Your task to perform on an android device: turn off location Image 0: 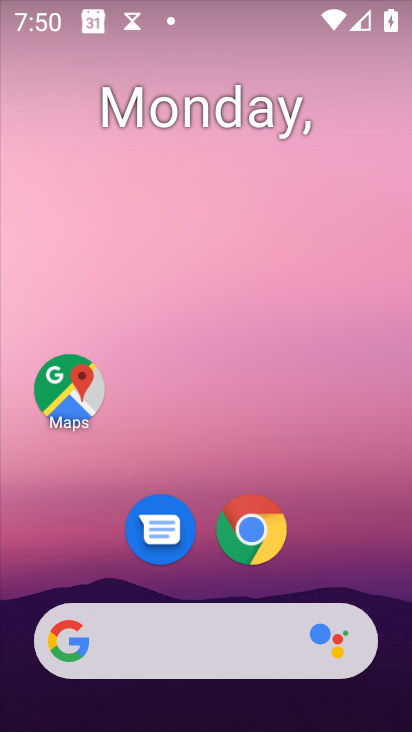
Step 0: drag from (82, 544) to (304, 132)
Your task to perform on an android device: turn off location Image 1: 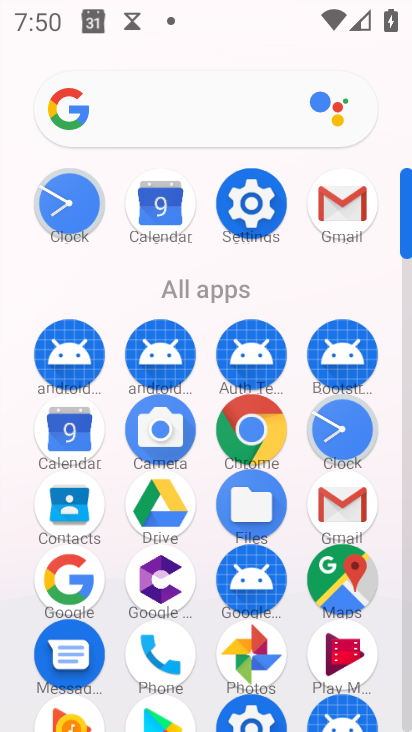
Step 1: click (239, 205)
Your task to perform on an android device: turn off location Image 2: 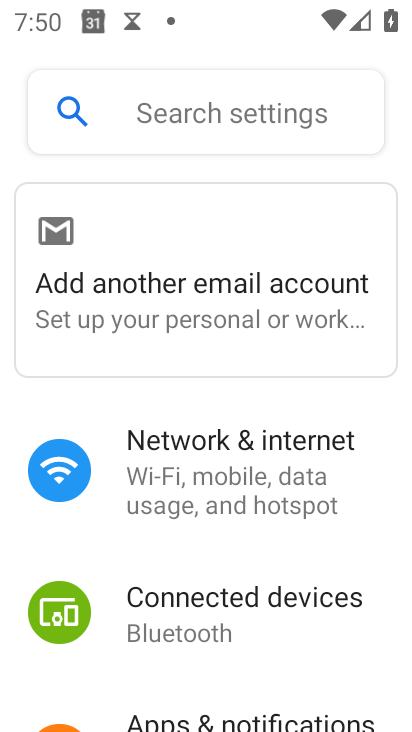
Step 2: drag from (242, 620) to (398, 269)
Your task to perform on an android device: turn off location Image 3: 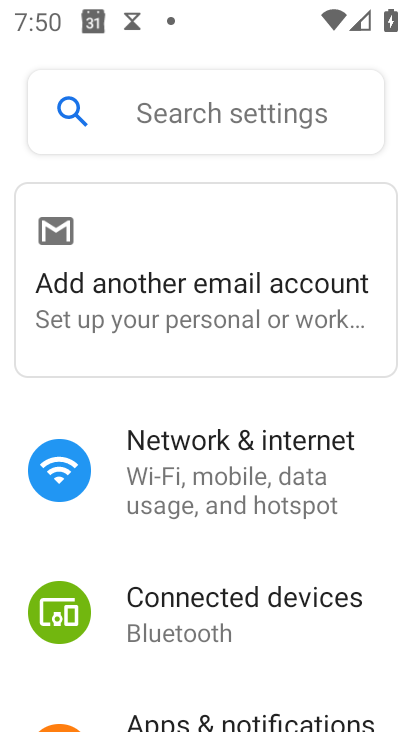
Step 3: drag from (161, 639) to (341, 302)
Your task to perform on an android device: turn off location Image 4: 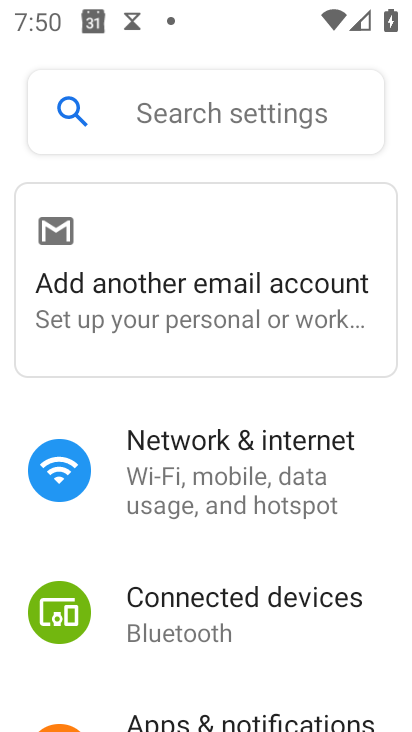
Step 4: drag from (187, 669) to (358, 272)
Your task to perform on an android device: turn off location Image 5: 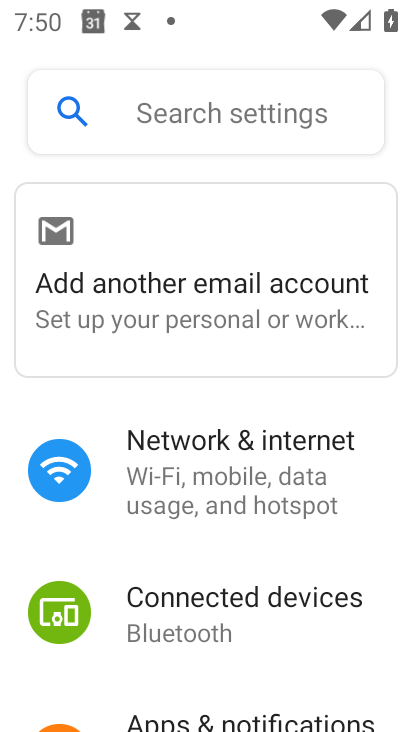
Step 5: drag from (8, 722) to (310, 323)
Your task to perform on an android device: turn off location Image 6: 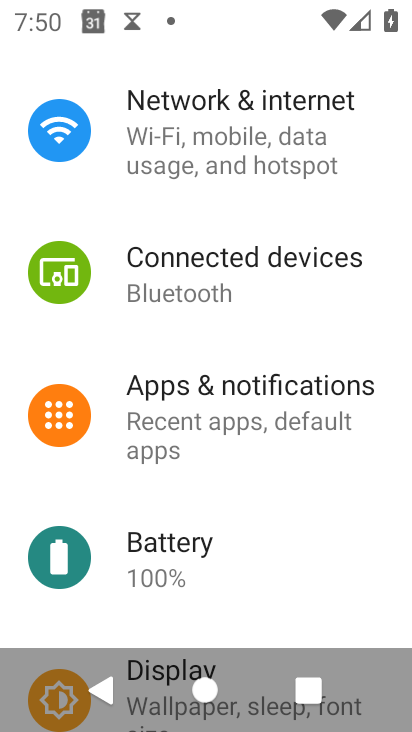
Step 6: drag from (53, 638) to (358, 262)
Your task to perform on an android device: turn off location Image 7: 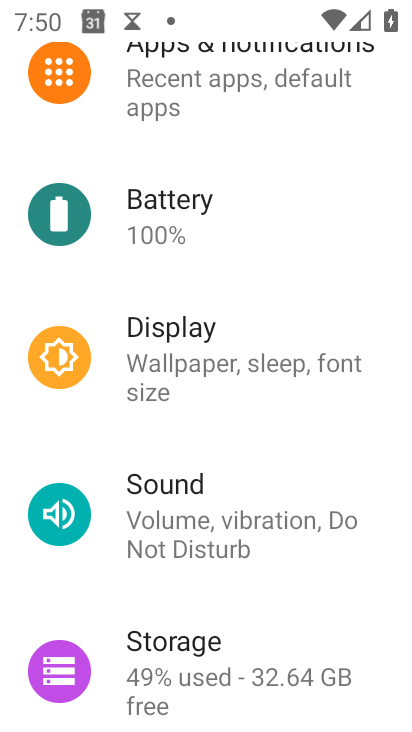
Step 7: drag from (22, 674) to (348, 215)
Your task to perform on an android device: turn off location Image 8: 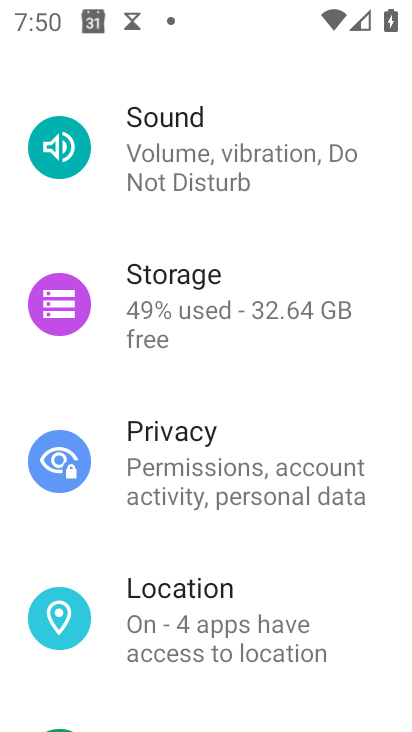
Step 8: click (130, 636)
Your task to perform on an android device: turn off location Image 9: 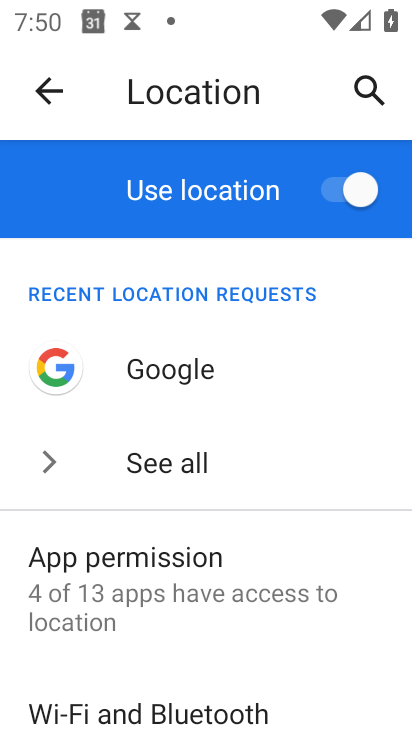
Step 9: click (371, 190)
Your task to perform on an android device: turn off location Image 10: 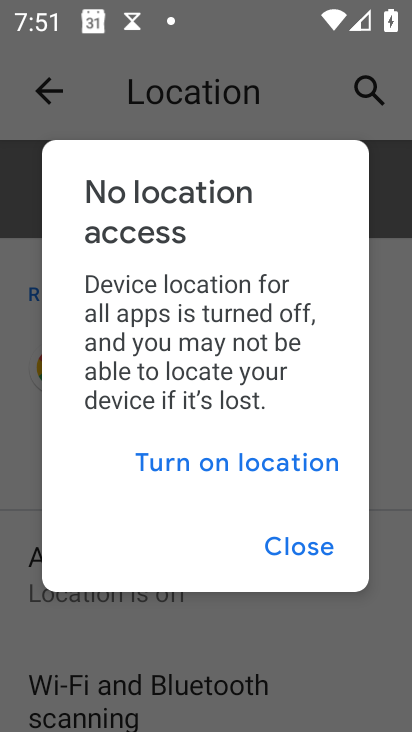
Step 10: click (325, 545)
Your task to perform on an android device: turn off location Image 11: 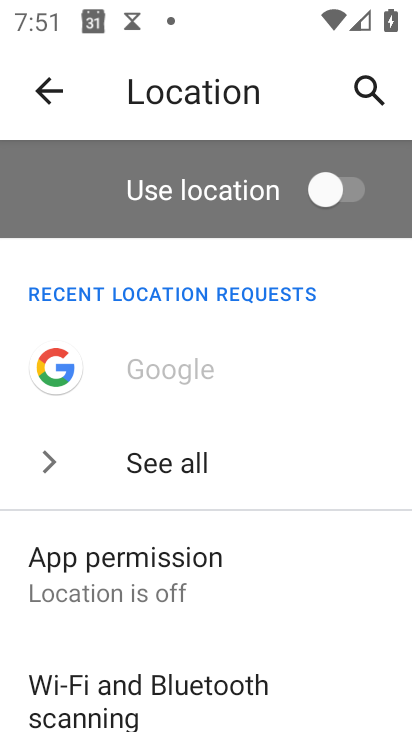
Step 11: task complete